Your task to perform on an android device: Open Google Maps Image 0: 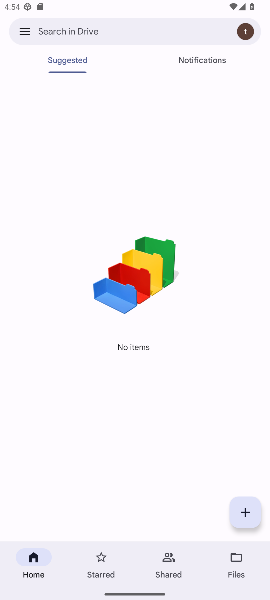
Step 0: press home button
Your task to perform on an android device: Open Google Maps Image 1: 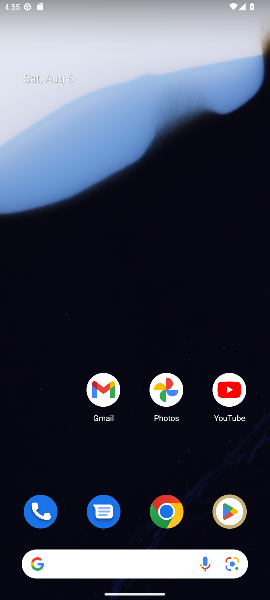
Step 1: drag from (125, 470) to (149, 77)
Your task to perform on an android device: Open Google Maps Image 2: 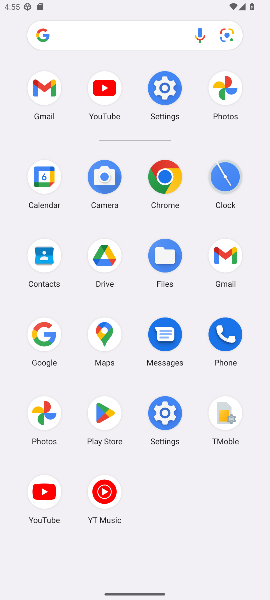
Step 2: click (99, 343)
Your task to perform on an android device: Open Google Maps Image 3: 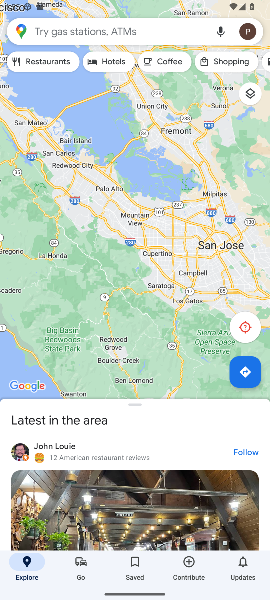
Step 3: task complete